Your task to perform on an android device: Open Google Chrome Image 0: 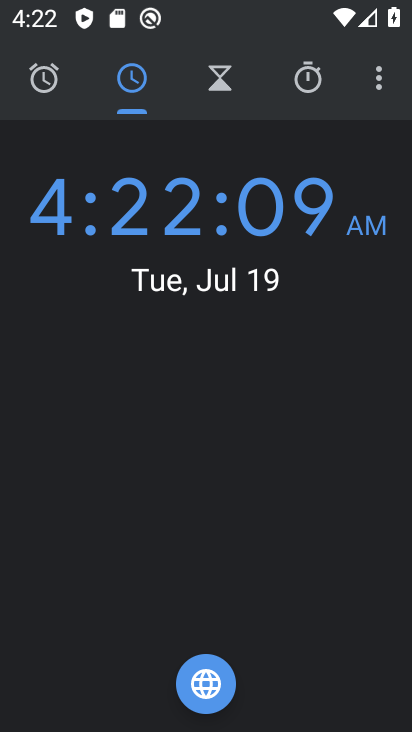
Step 0: press home button
Your task to perform on an android device: Open Google Chrome Image 1: 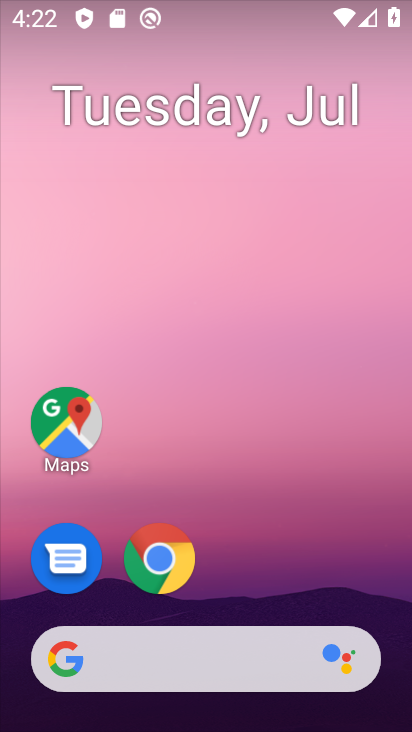
Step 1: drag from (201, 623) to (211, 274)
Your task to perform on an android device: Open Google Chrome Image 2: 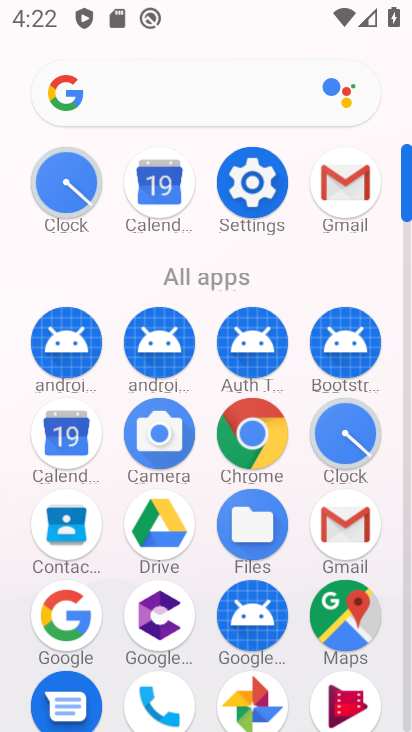
Step 2: drag from (138, 466) to (166, 257)
Your task to perform on an android device: Open Google Chrome Image 3: 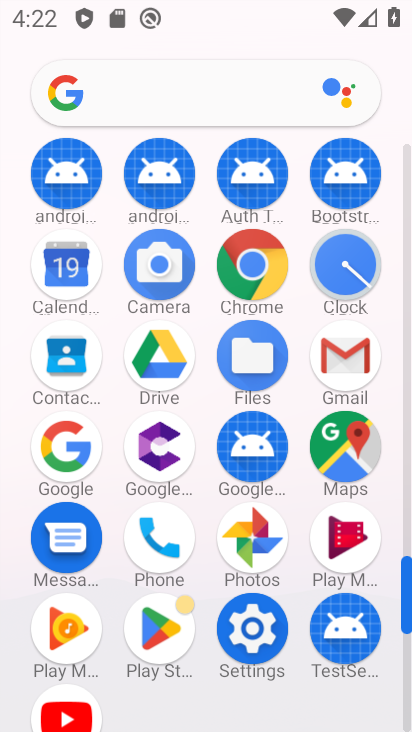
Step 3: click (259, 294)
Your task to perform on an android device: Open Google Chrome Image 4: 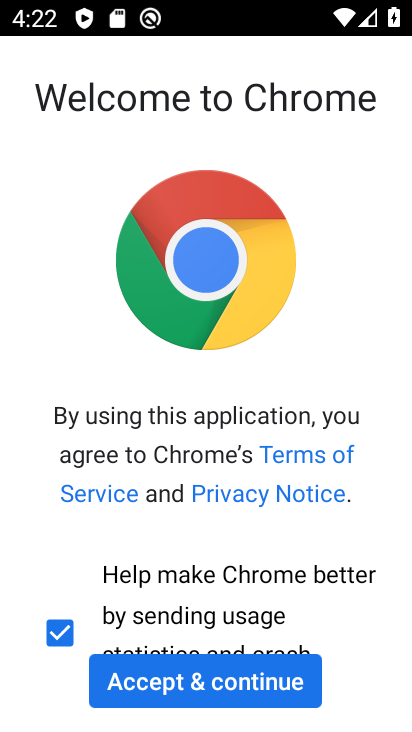
Step 4: click (190, 682)
Your task to perform on an android device: Open Google Chrome Image 5: 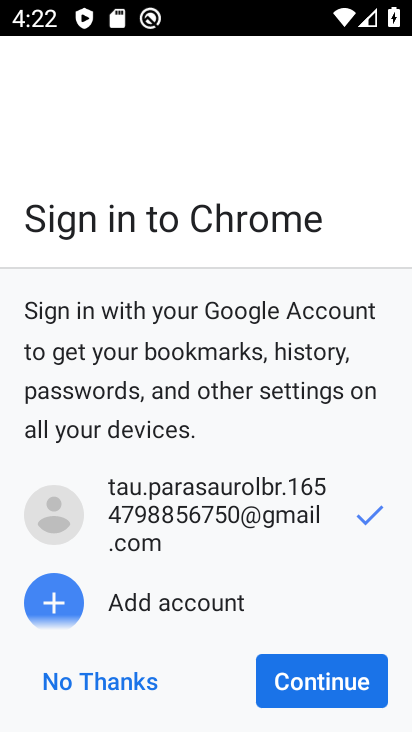
Step 5: click (321, 684)
Your task to perform on an android device: Open Google Chrome Image 6: 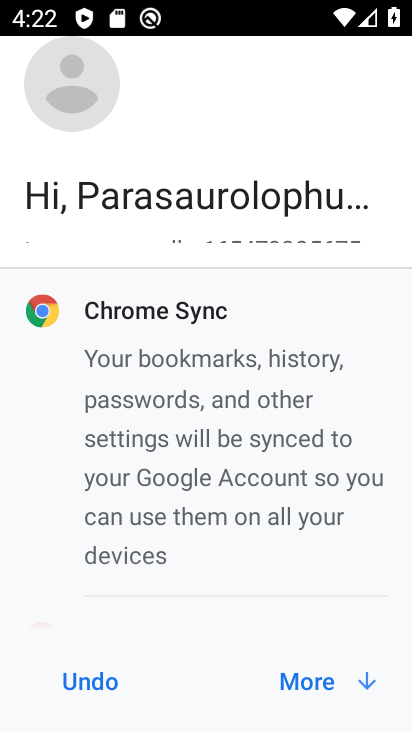
Step 6: click (321, 680)
Your task to perform on an android device: Open Google Chrome Image 7: 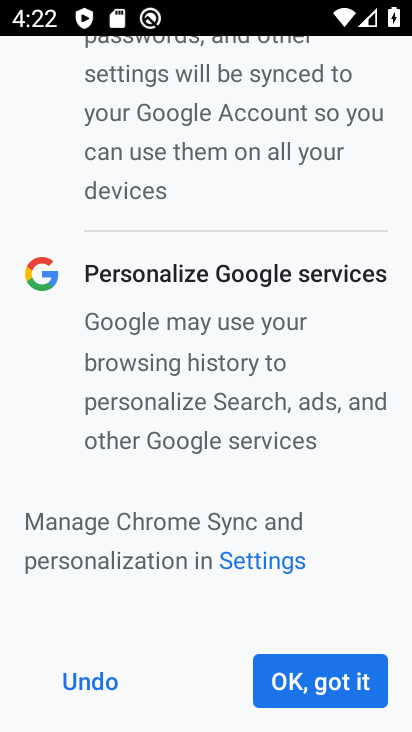
Step 7: click (321, 680)
Your task to perform on an android device: Open Google Chrome Image 8: 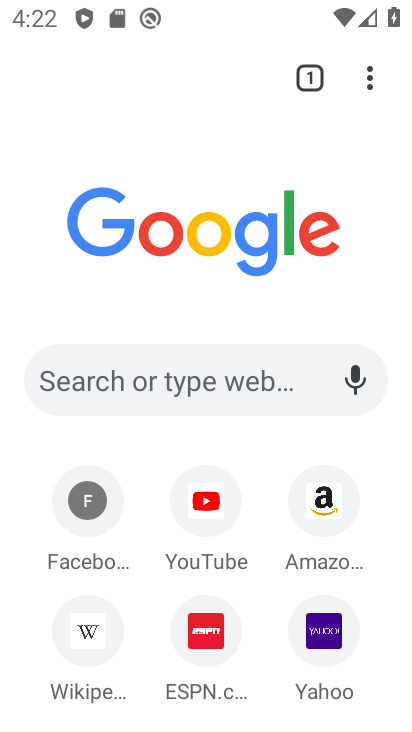
Step 8: task complete